Your task to perform on an android device: Show me the alarms in the clock app Image 0: 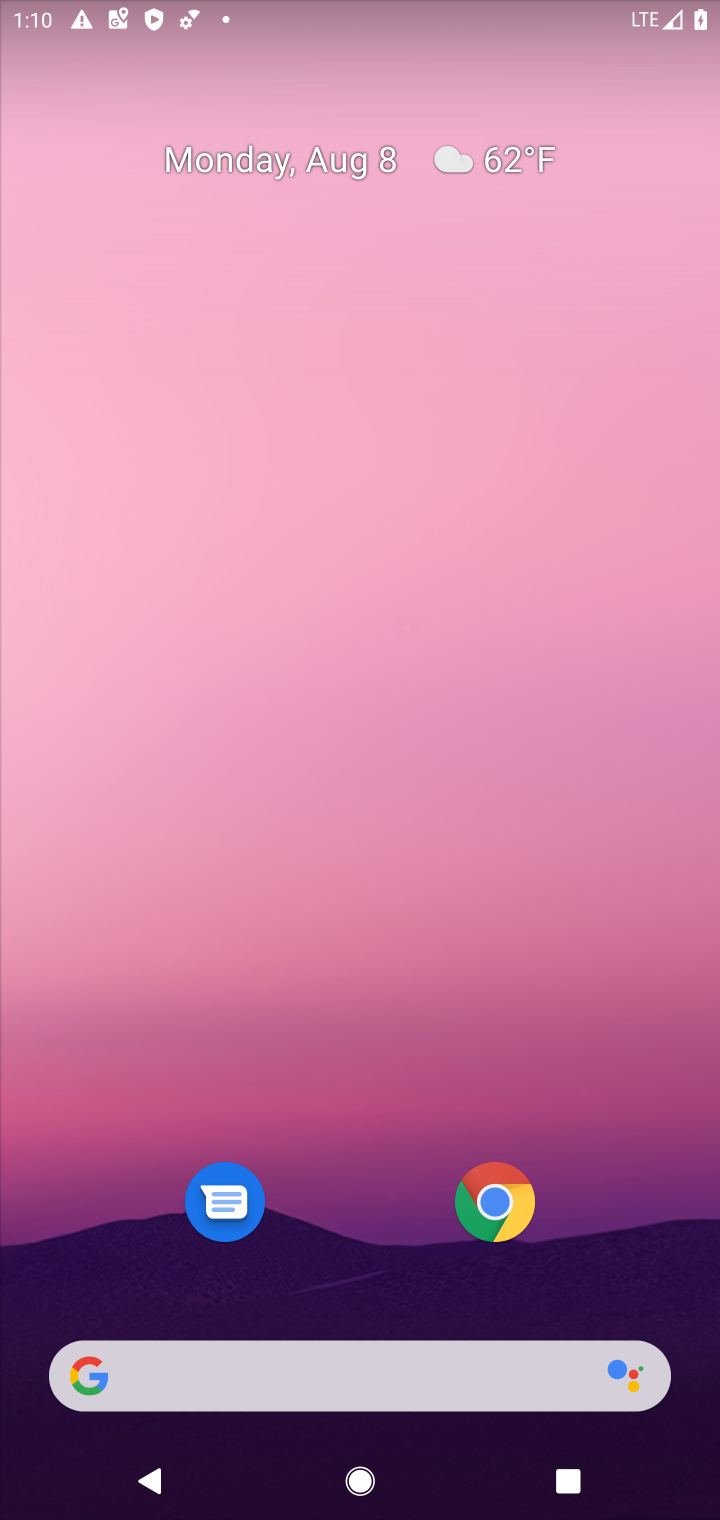
Step 0: drag from (355, 382) to (384, 44)
Your task to perform on an android device: Show me the alarms in the clock app Image 1: 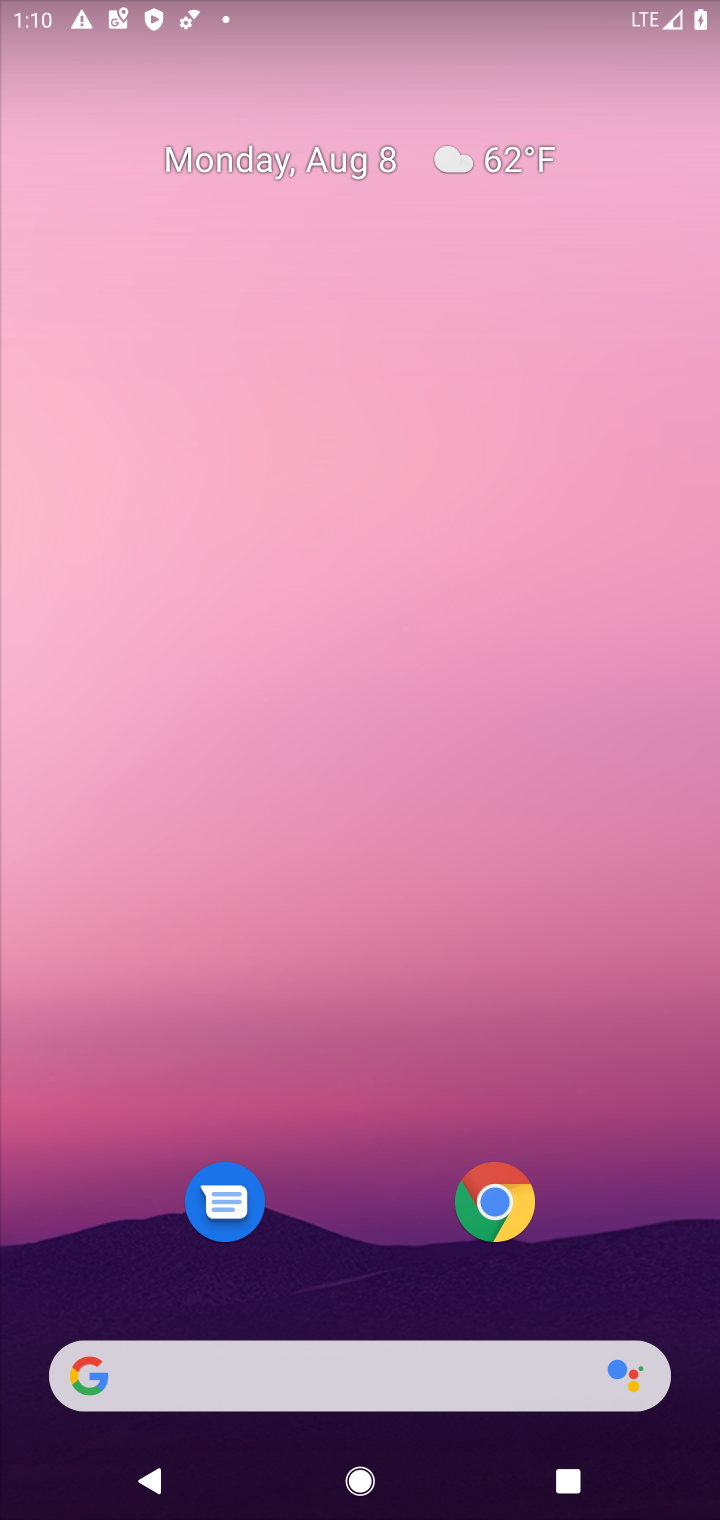
Step 1: click (357, 1309)
Your task to perform on an android device: Show me the alarms in the clock app Image 2: 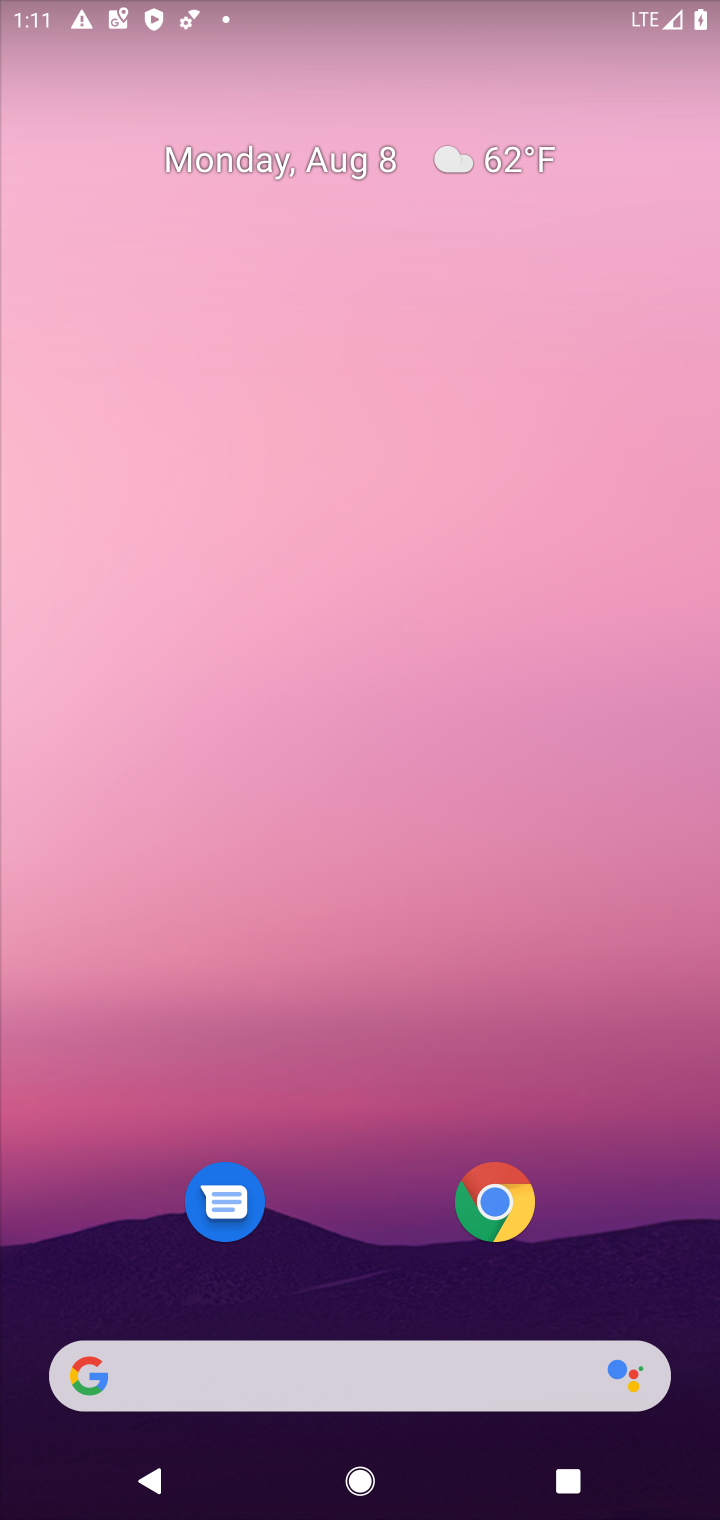
Step 2: drag from (306, 930) to (377, 37)
Your task to perform on an android device: Show me the alarms in the clock app Image 3: 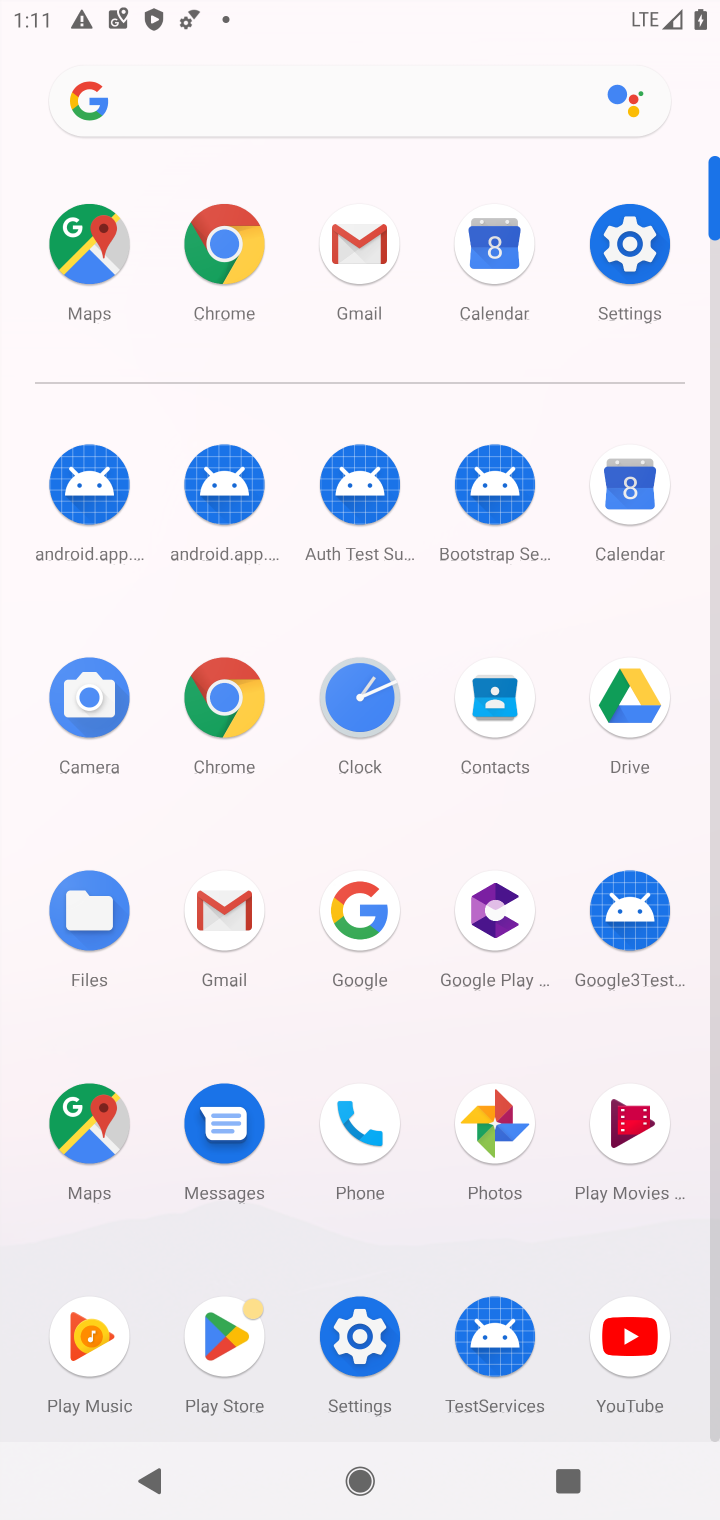
Step 3: click (358, 698)
Your task to perform on an android device: Show me the alarms in the clock app Image 4: 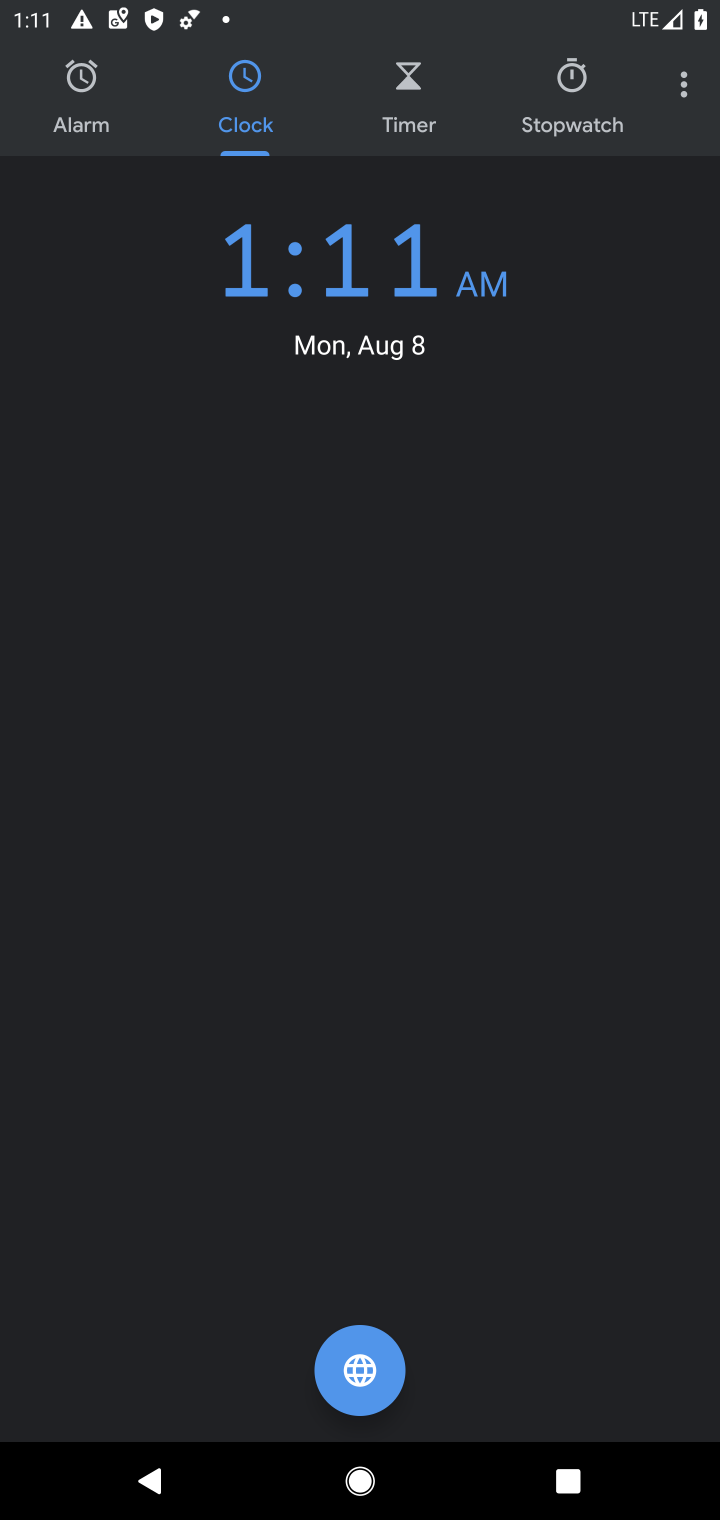
Step 4: click (89, 100)
Your task to perform on an android device: Show me the alarms in the clock app Image 5: 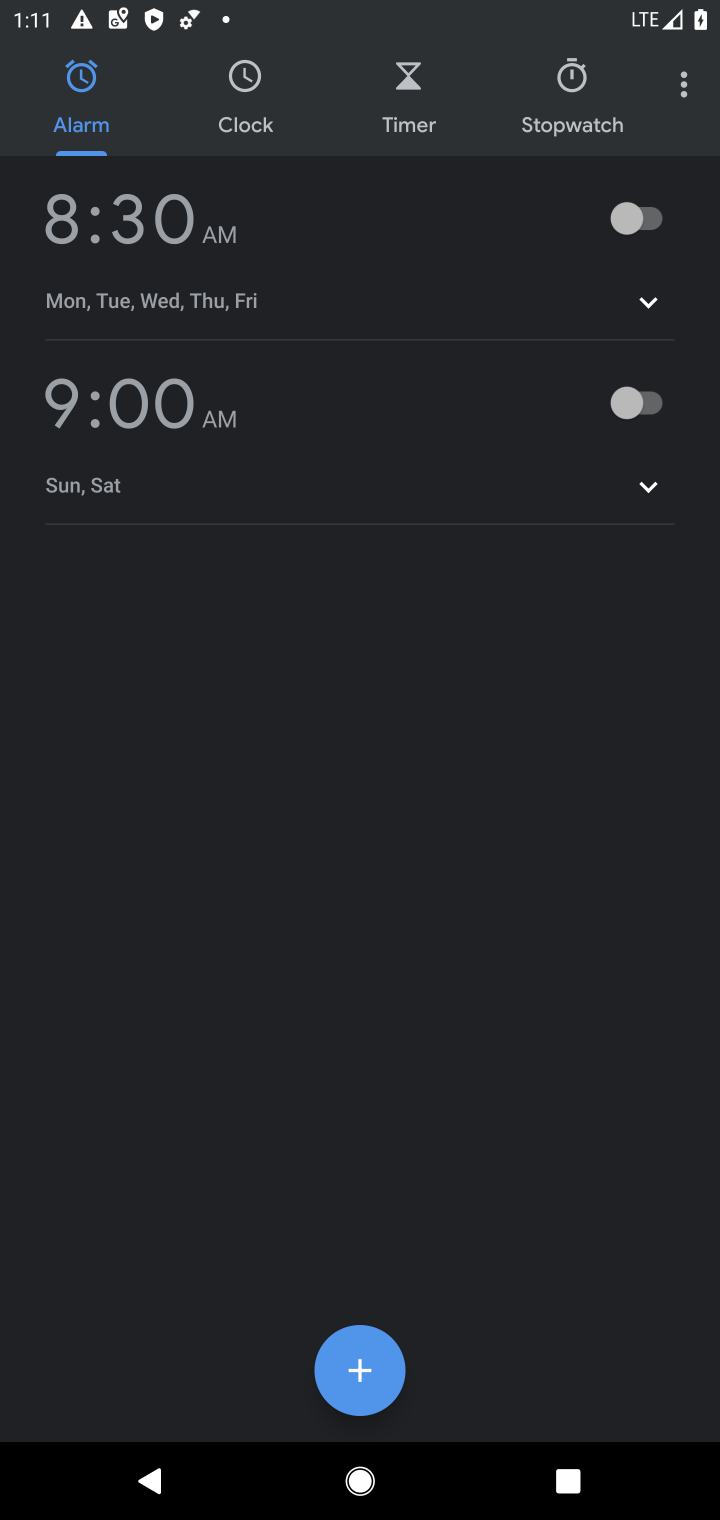
Step 5: task complete